Your task to perform on an android device: open a bookmark in the chrome app Image 0: 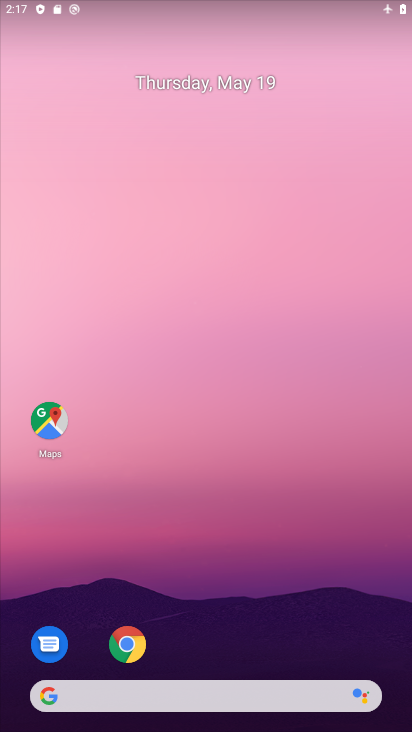
Step 0: drag from (262, 506) to (255, 253)
Your task to perform on an android device: open a bookmark in the chrome app Image 1: 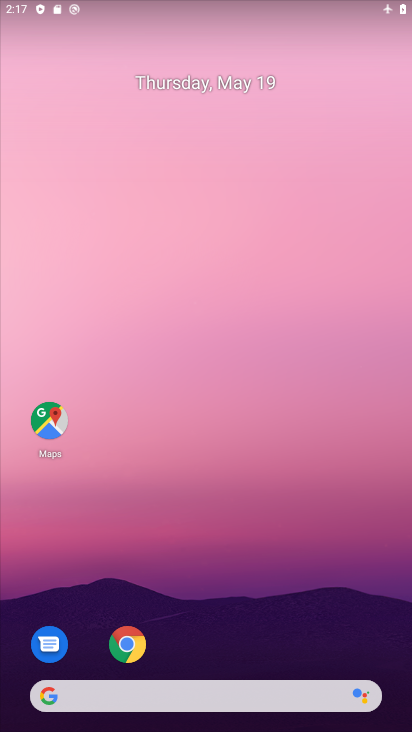
Step 1: drag from (249, 567) to (243, 233)
Your task to perform on an android device: open a bookmark in the chrome app Image 2: 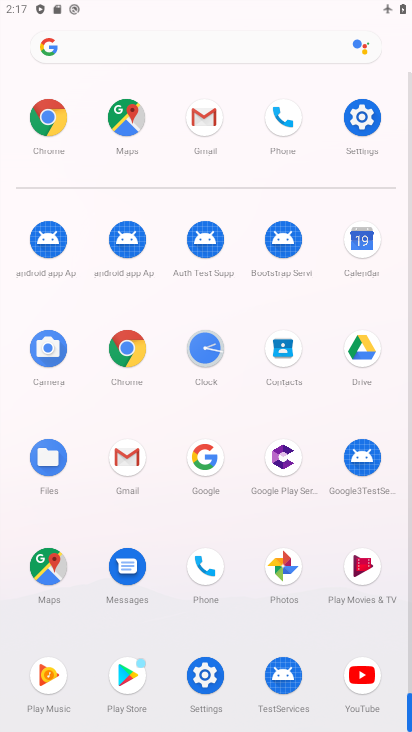
Step 2: click (117, 344)
Your task to perform on an android device: open a bookmark in the chrome app Image 3: 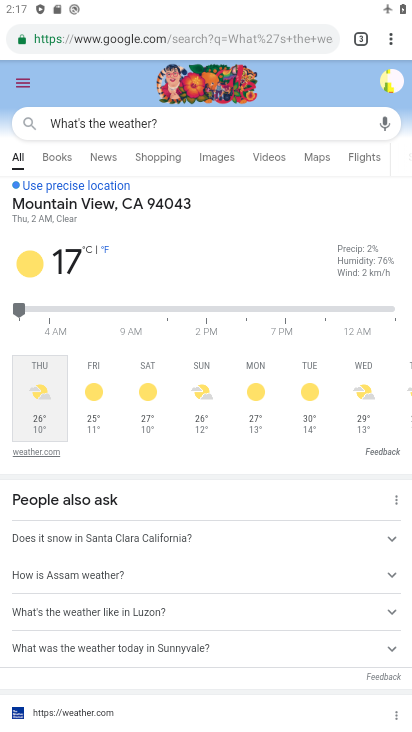
Step 3: click (383, 30)
Your task to perform on an android device: open a bookmark in the chrome app Image 4: 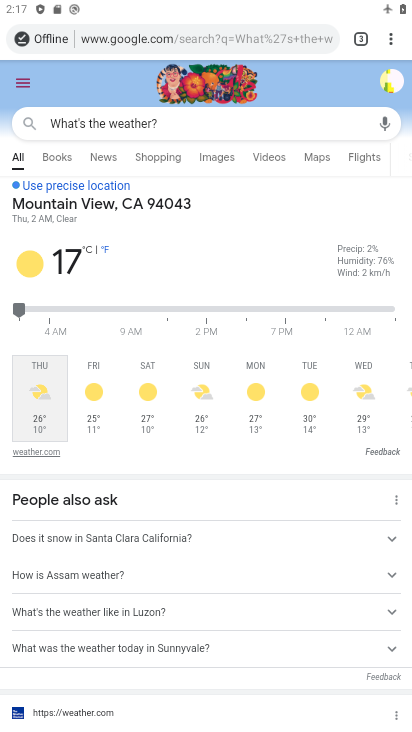
Step 4: click (390, 37)
Your task to perform on an android device: open a bookmark in the chrome app Image 5: 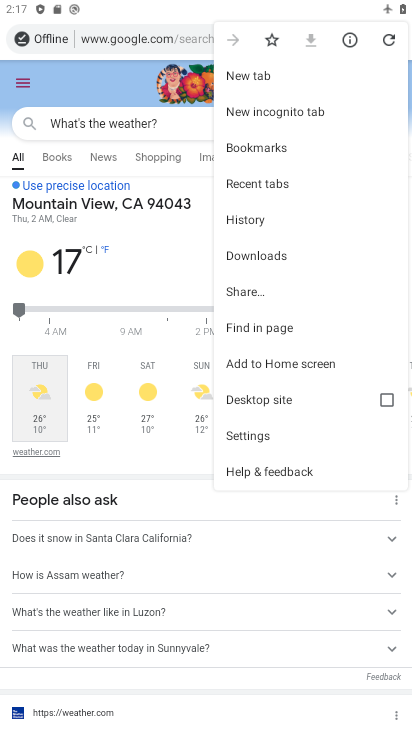
Step 5: click (276, 141)
Your task to perform on an android device: open a bookmark in the chrome app Image 6: 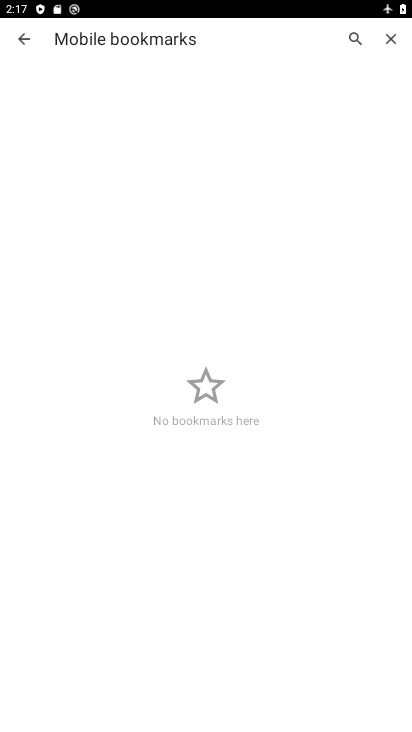
Step 6: task complete